Your task to perform on an android device: Open display settings Image 0: 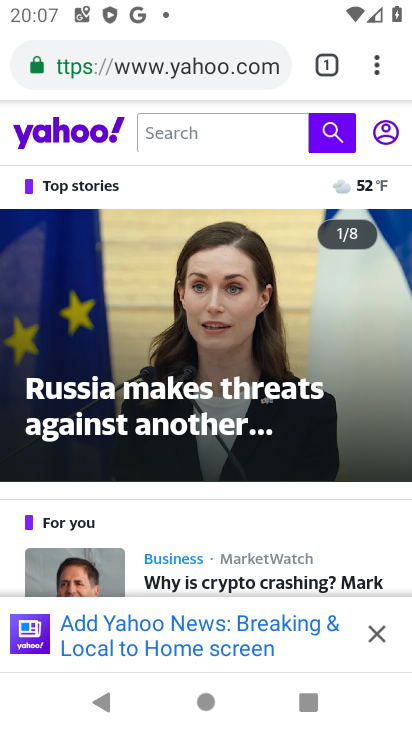
Step 0: press home button
Your task to perform on an android device: Open display settings Image 1: 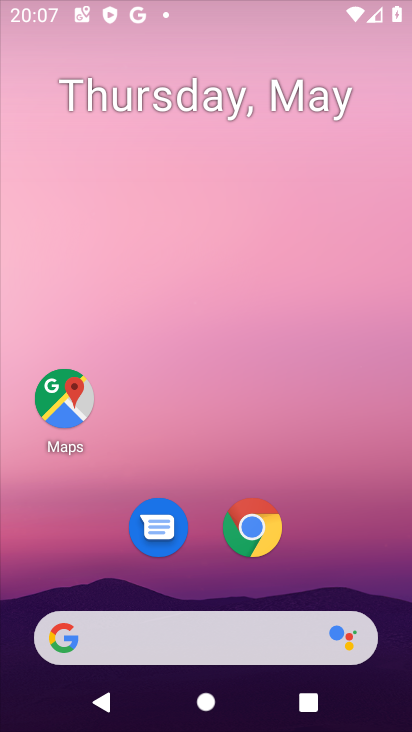
Step 1: drag from (26, 509) to (145, 177)
Your task to perform on an android device: Open display settings Image 2: 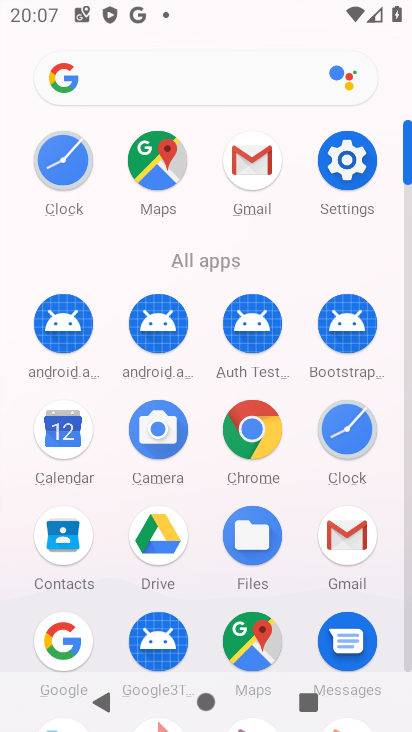
Step 2: click (342, 160)
Your task to perform on an android device: Open display settings Image 3: 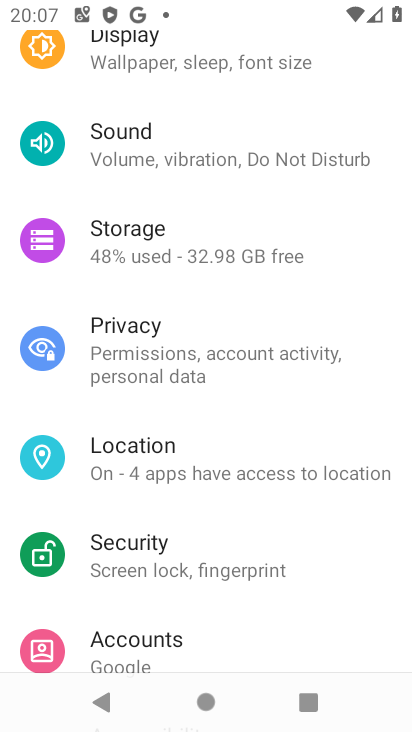
Step 3: click (147, 62)
Your task to perform on an android device: Open display settings Image 4: 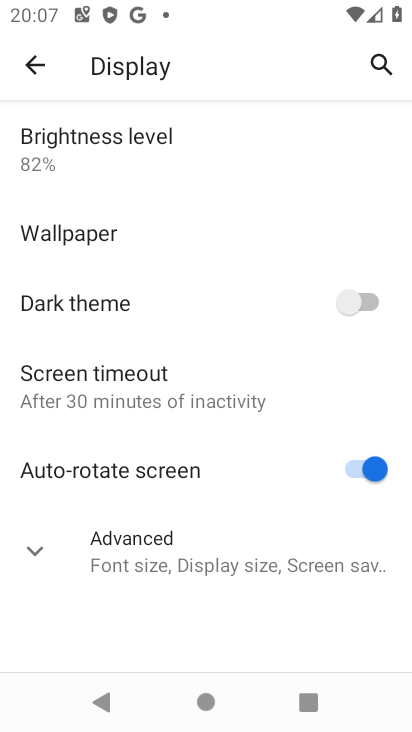
Step 4: task complete